Your task to perform on an android device: Open settings Image 0: 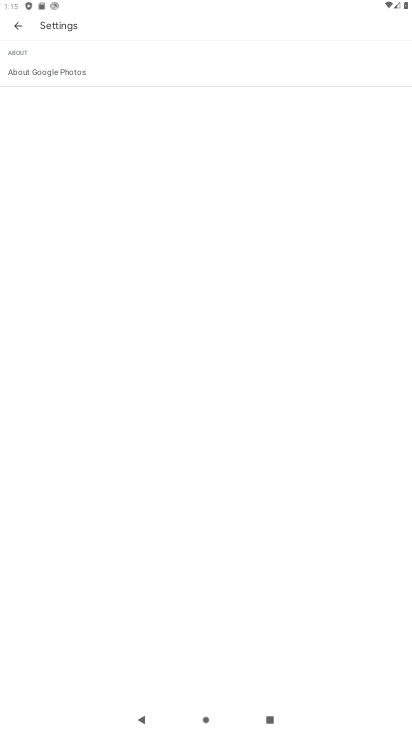
Step 0: press home button
Your task to perform on an android device: Open settings Image 1: 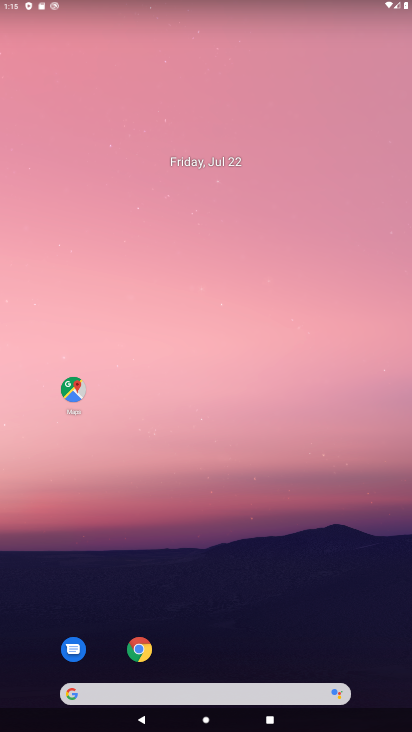
Step 1: drag from (326, 558) to (250, 141)
Your task to perform on an android device: Open settings Image 2: 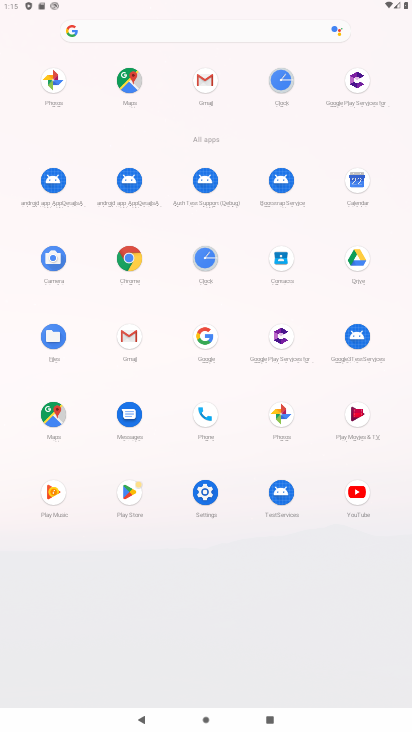
Step 2: click (199, 498)
Your task to perform on an android device: Open settings Image 3: 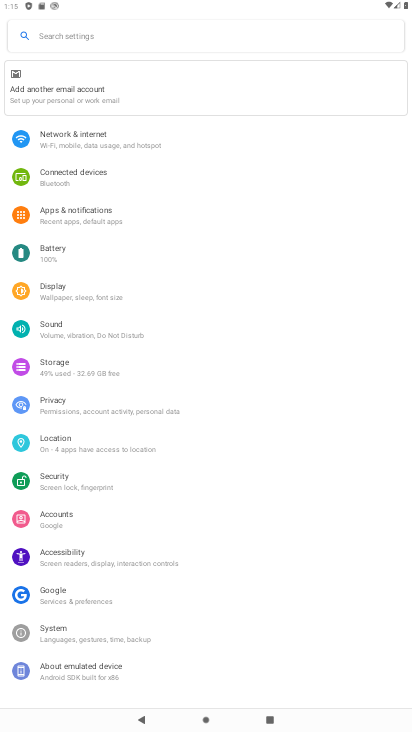
Step 3: task complete